Your task to perform on an android device: Open the contacts Image 0: 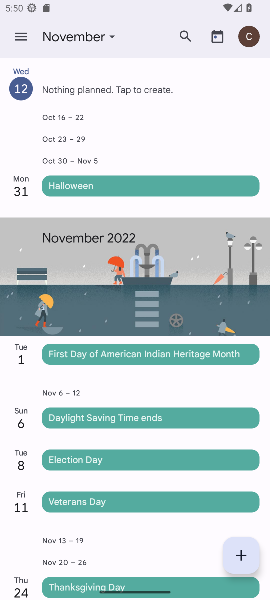
Step 0: press home button
Your task to perform on an android device: Open the contacts Image 1: 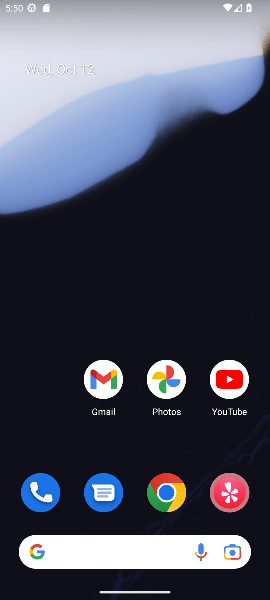
Step 1: drag from (133, 410) to (140, 29)
Your task to perform on an android device: Open the contacts Image 2: 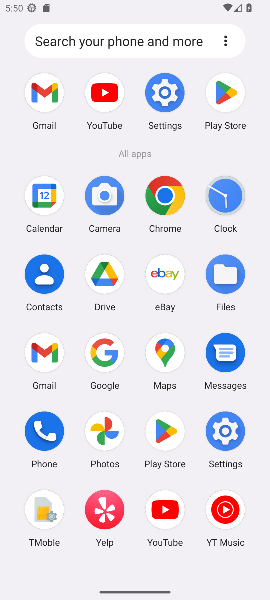
Step 2: click (43, 284)
Your task to perform on an android device: Open the contacts Image 3: 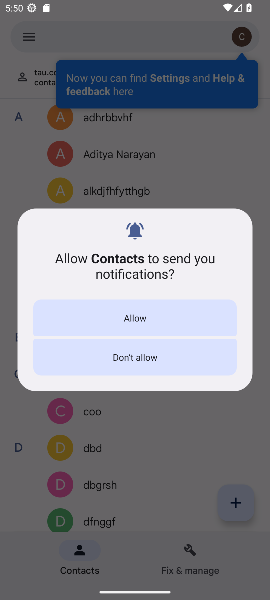
Step 3: click (127, 357)
Your task to perform on an android device: Open the contacts Image 4: 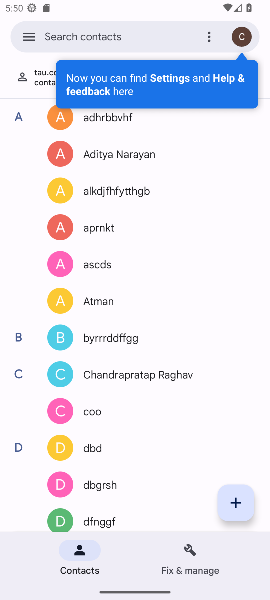
Step 4: task complete